Your task to perform on an android device: turn off wifi Image 0: 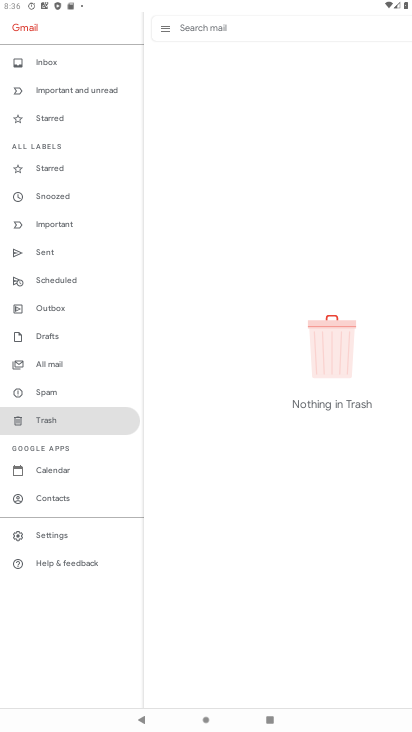
Step 0: press home button
Your task to perform on an android device: turn off wifi Image 1: 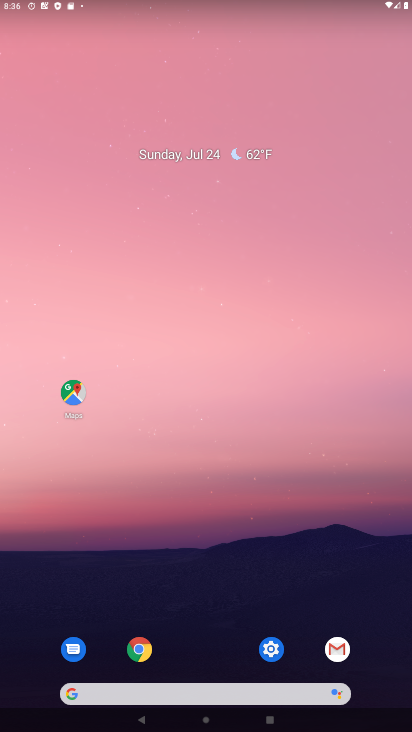
Step 1: click (274, 645)
Your task to perform on an android device: turn off wifi Image 2: 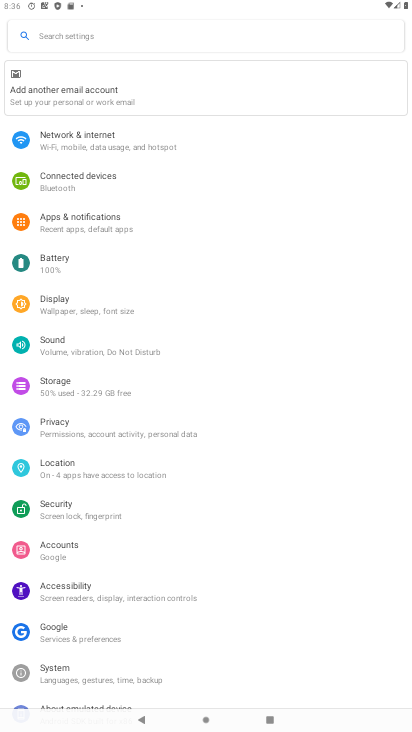
Step 2: click (109, 136)
Your task to perform on an android device: turn off wifi Image 3: 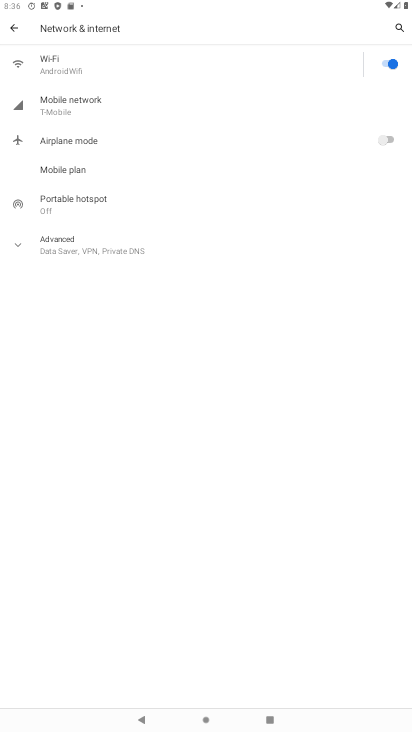
Step 3: click (119, 74)
Your task to perform on an android device: turn off wifi Image 4: 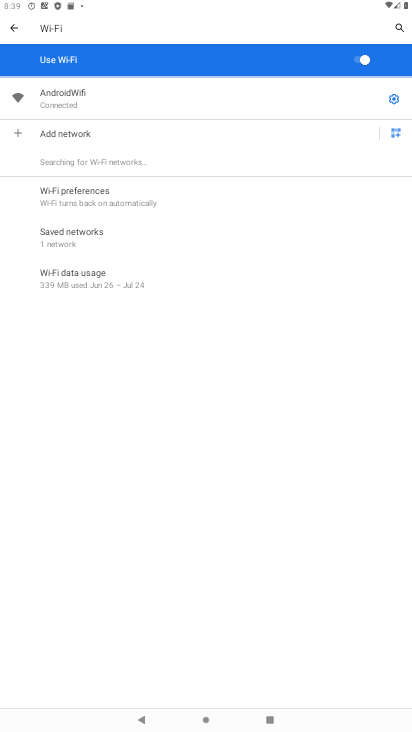
Step 4: task complete